Your task to perform on an android device: Open network settings Image 0: 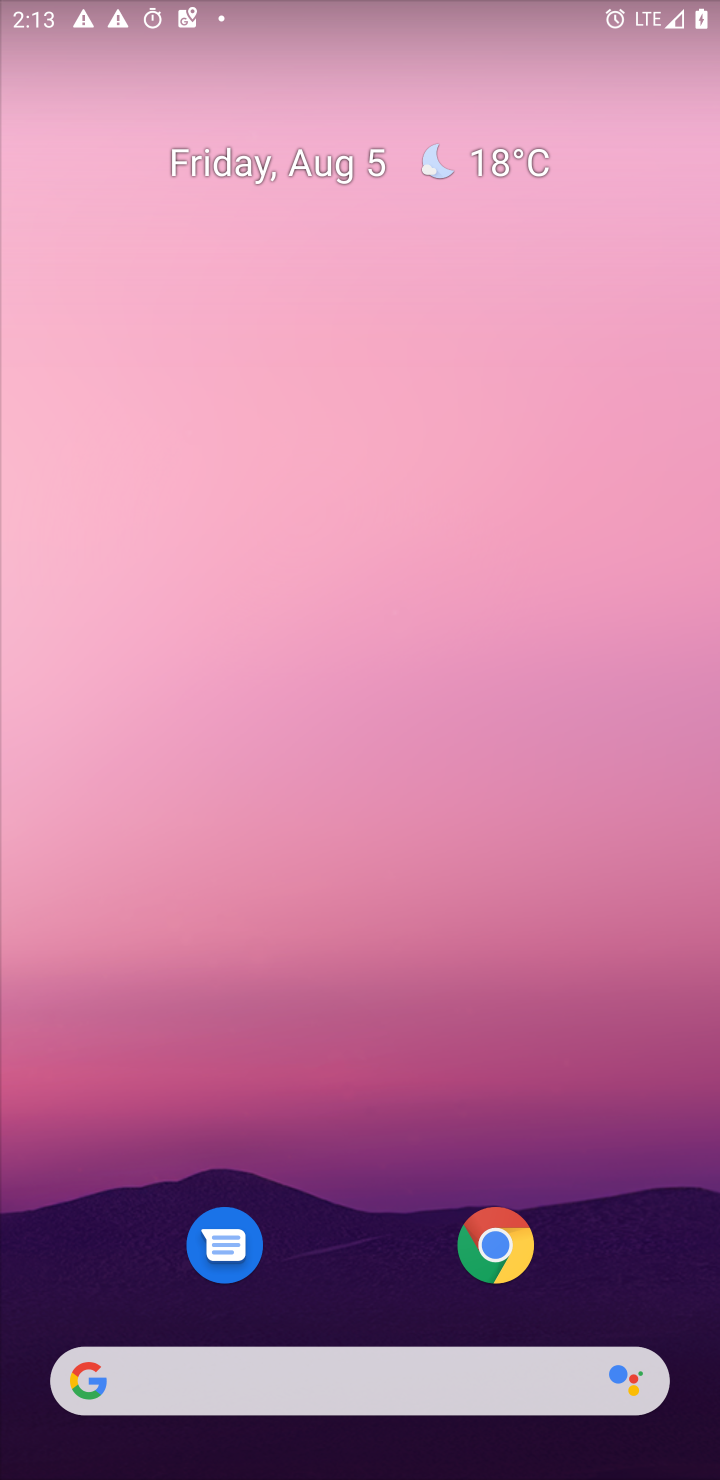
Step 0: drag from (562, 388) to (599, 215)
Your task to perform on an android device: Open network settings Image 1: 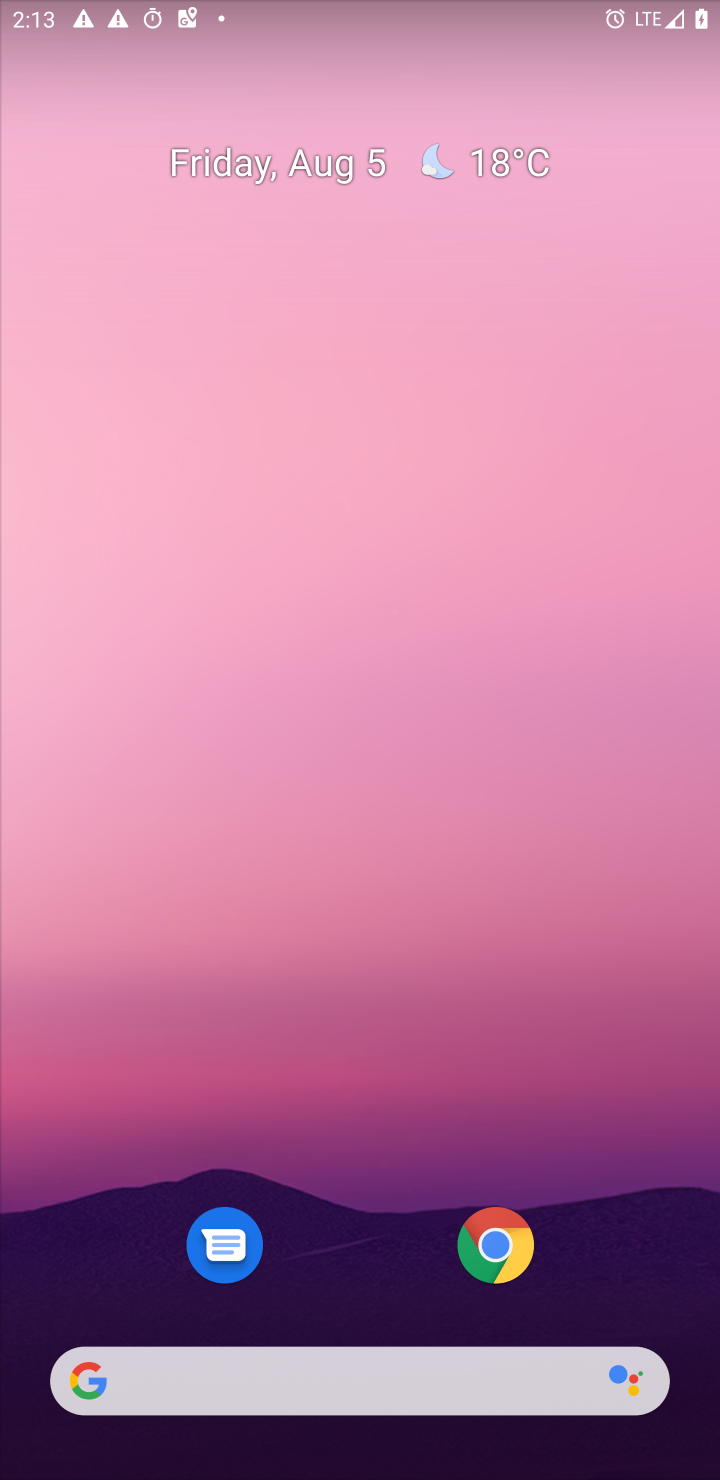
Step 1: drag from (414, 783) to (573, 16)
Your task to perform on an android device: Open network settings Image 2: 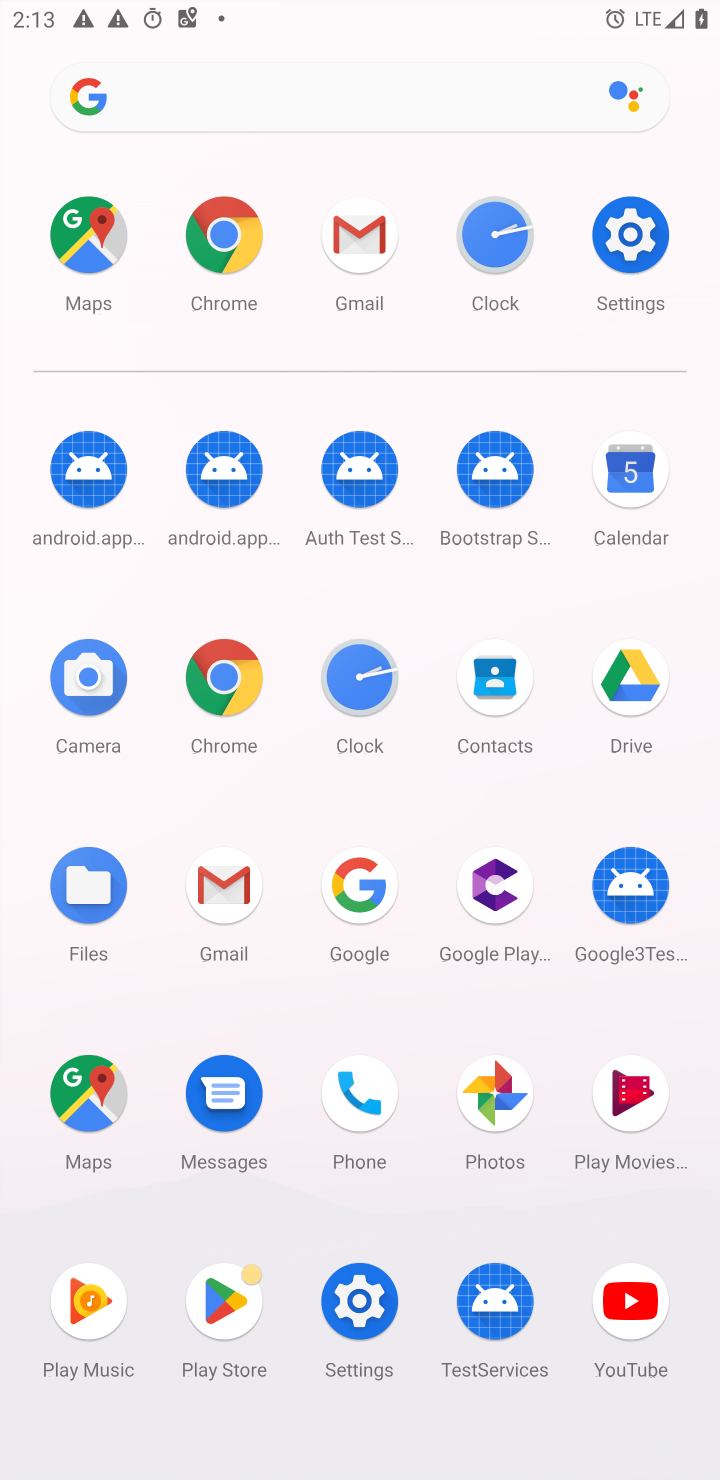
Step 2: click (623, 249)
Your task to perform on an android device: Open network settings Image 3: 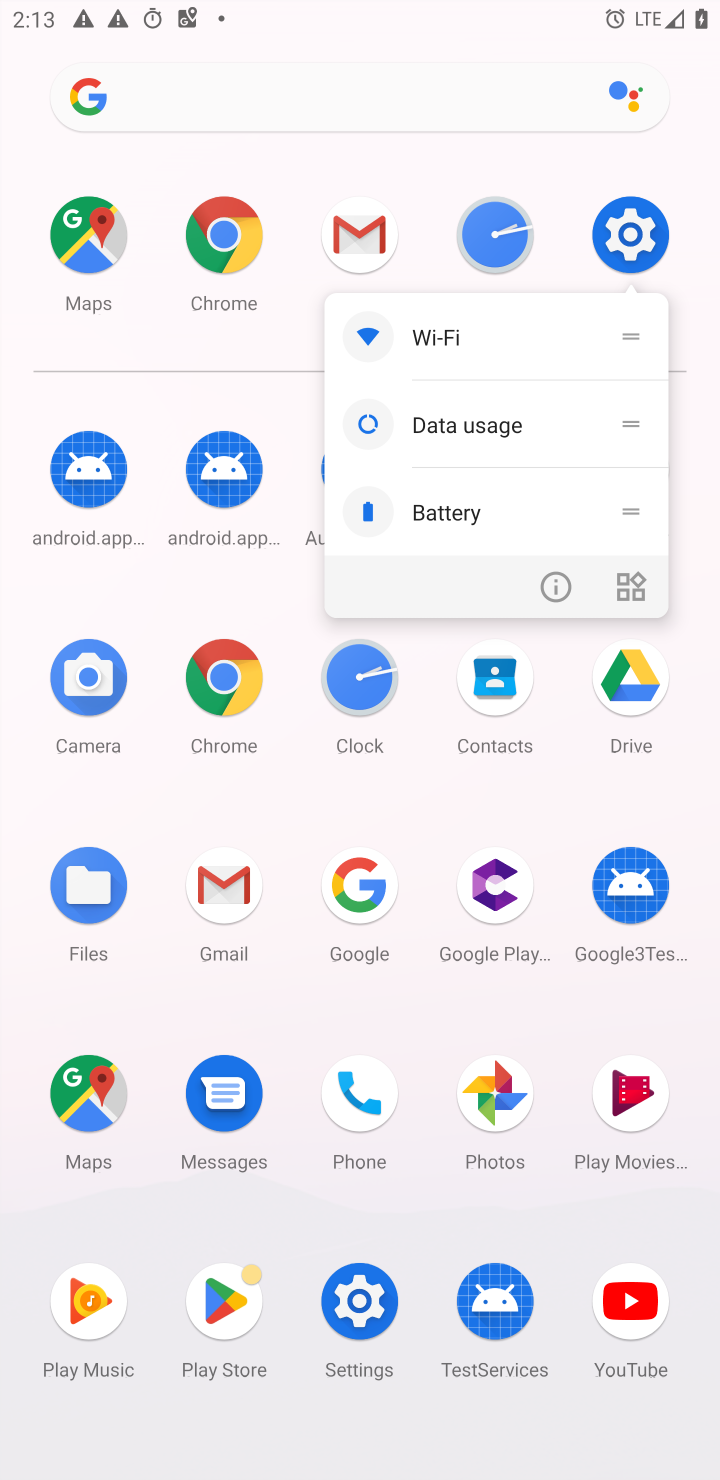
Step 3: click (625, 248)
Your task to perform on an android device: Open network settings Image 4: 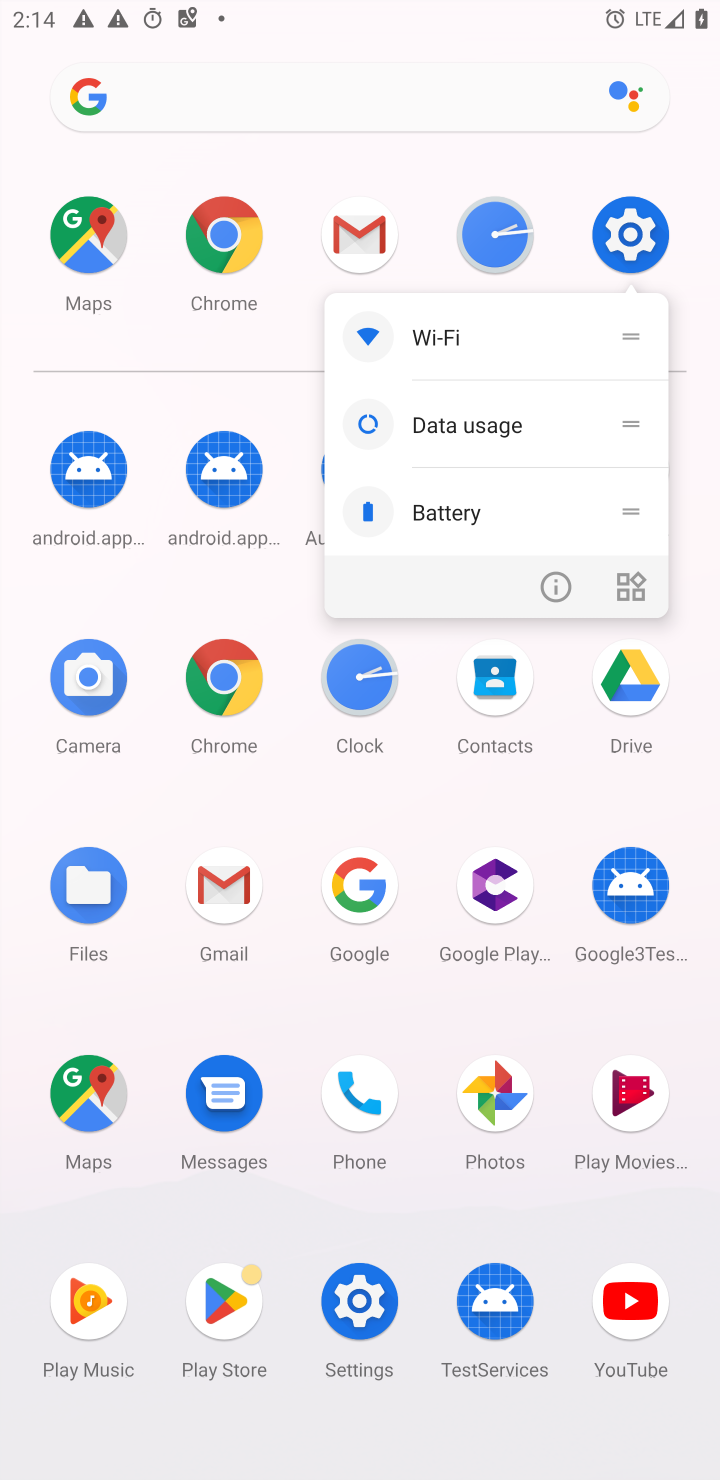
Step 4: click (609, 215)
Your task to perform on an android device: Open network settings Image 5: 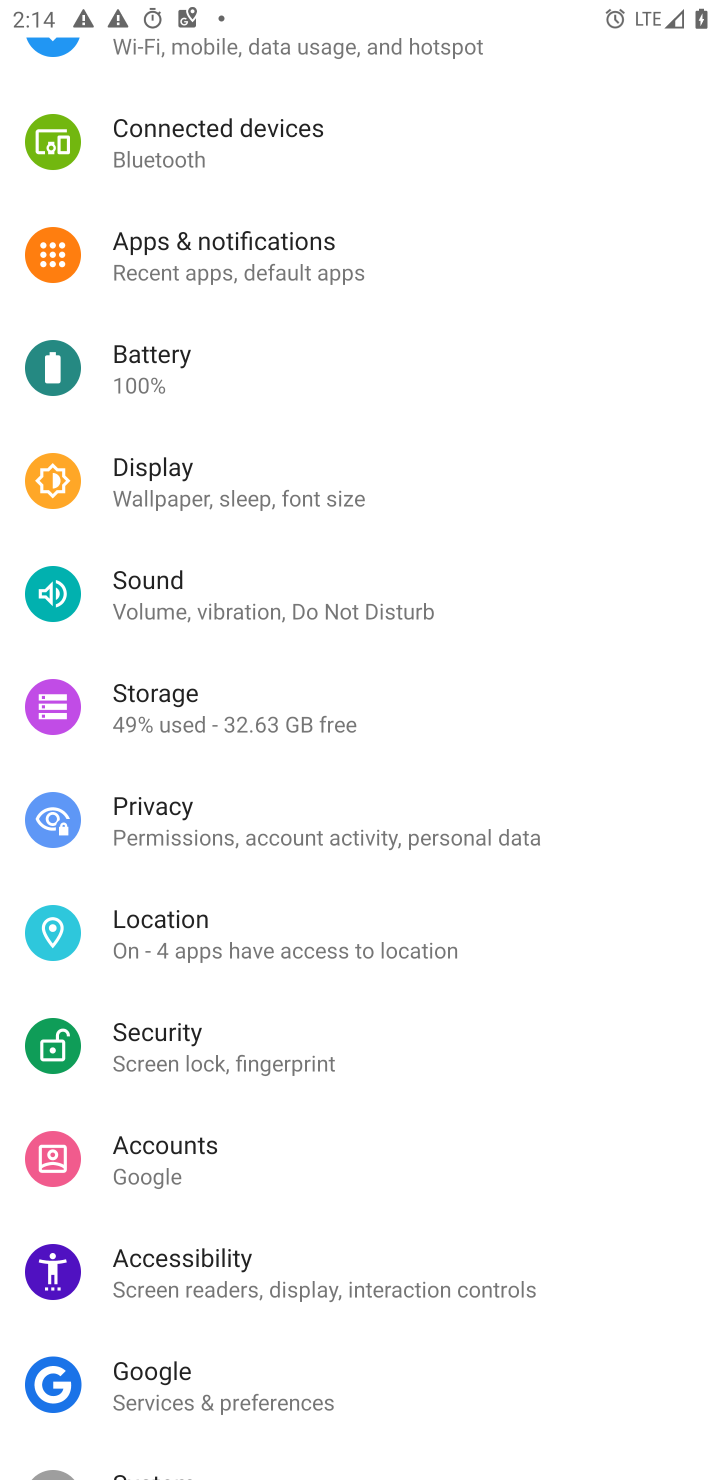
Step 5: drag from (516, 301) to (453, 1253)
Your task to perform on an android device: Open network settings Image 6: 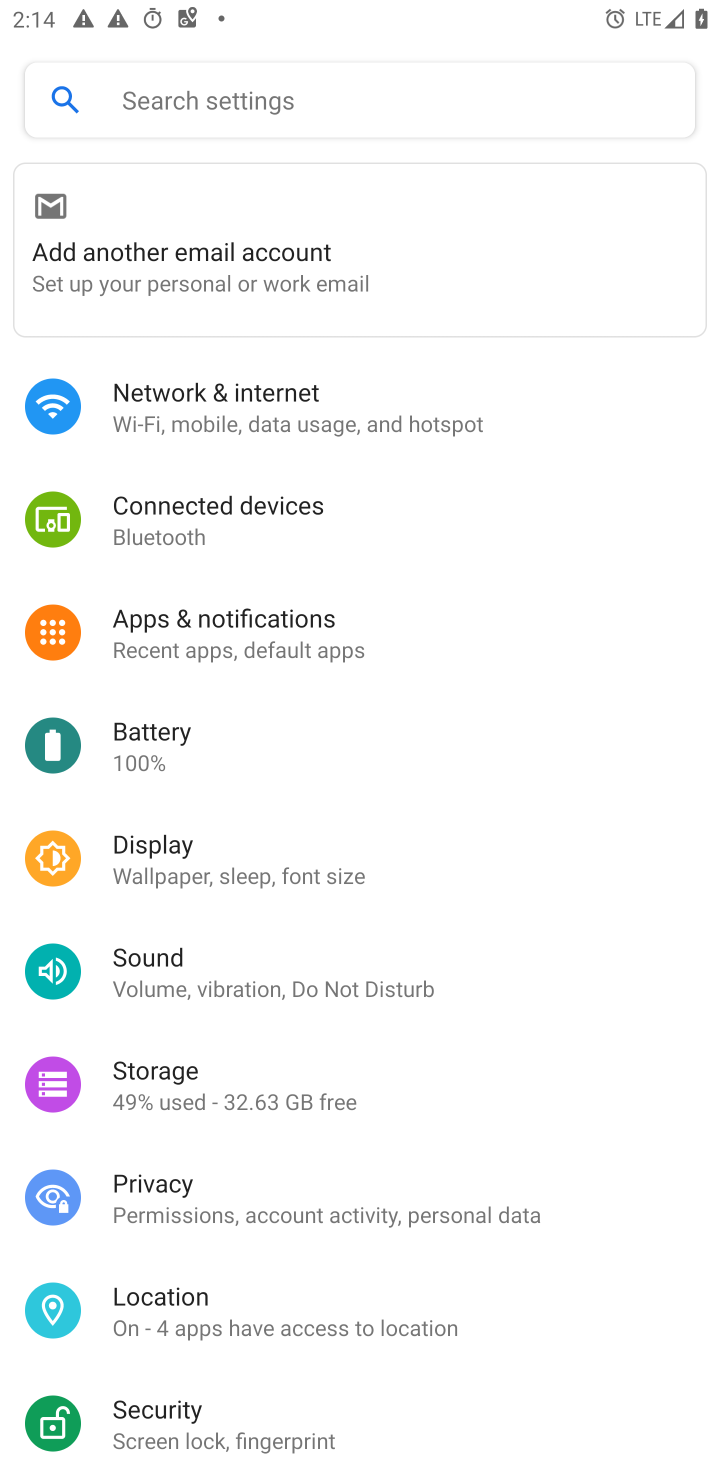
Step 6: click (203, 403)
Your task to perform on an android device: Open network settings Image 7: 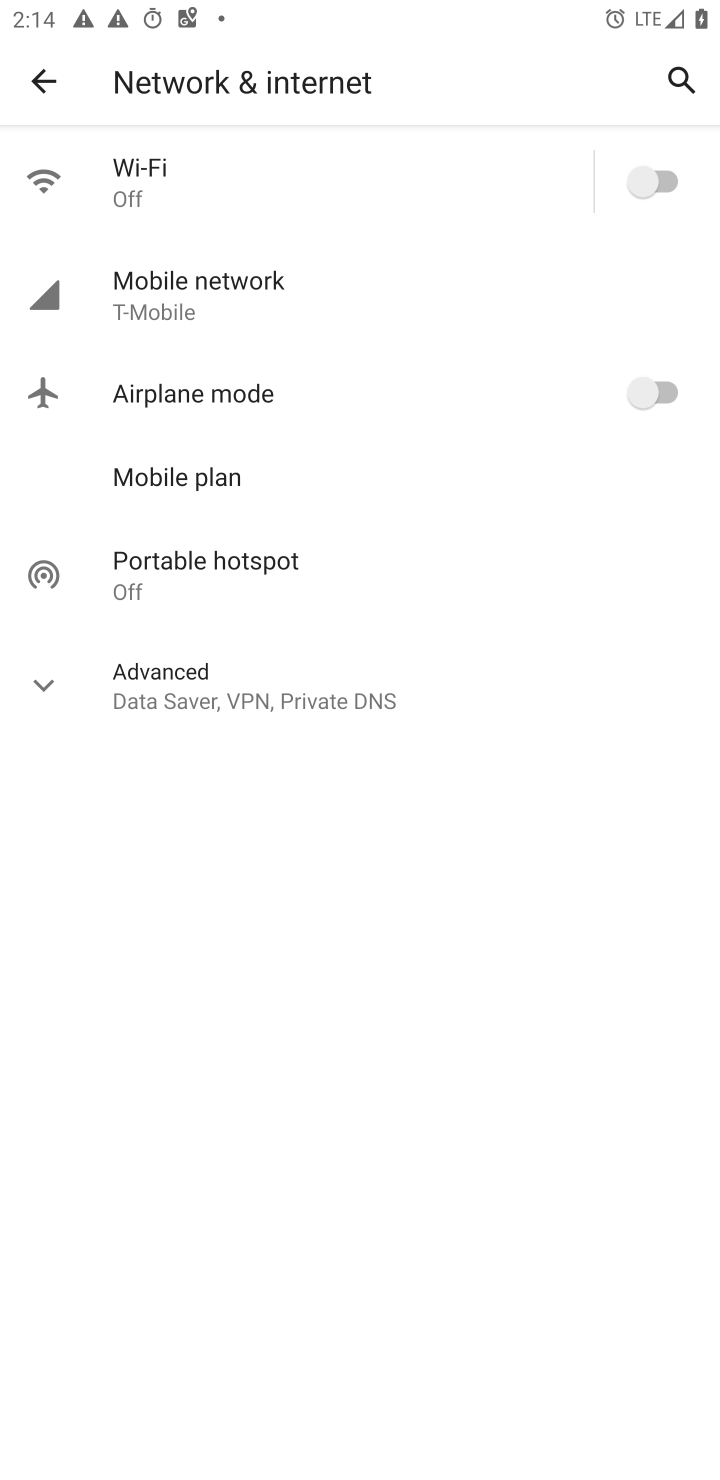
Step 7: task complete